Your task to perform on an android device: change text size in settings app Image 0: 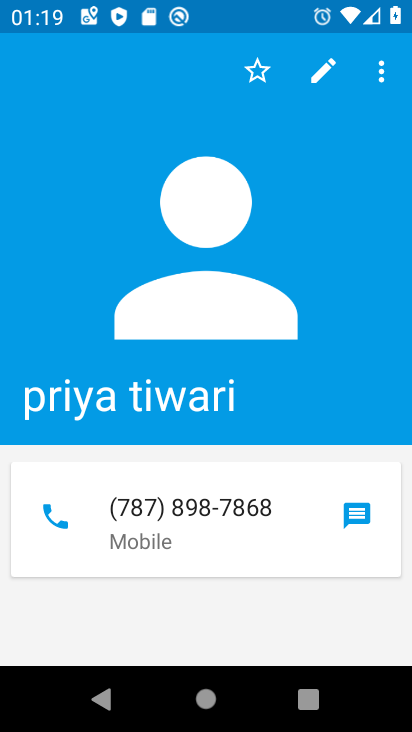
Step 0: press home button
Your task to perform on an android device: change text size in settings app Image 1: 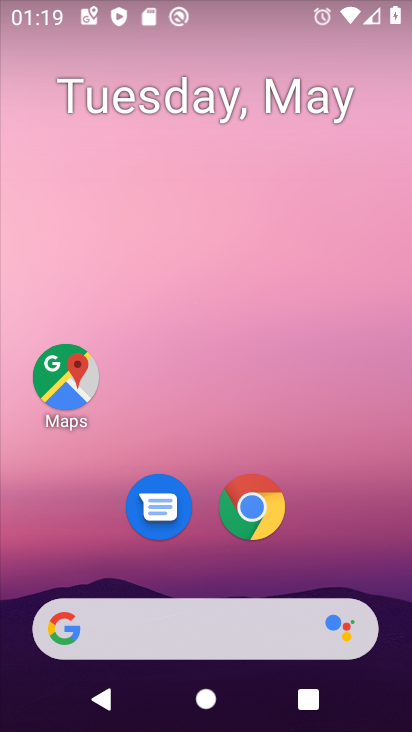
Step 1: drag from (233, 563) to (177, 219)
Your task to perform on an android device: change text size in settings app Image 2: 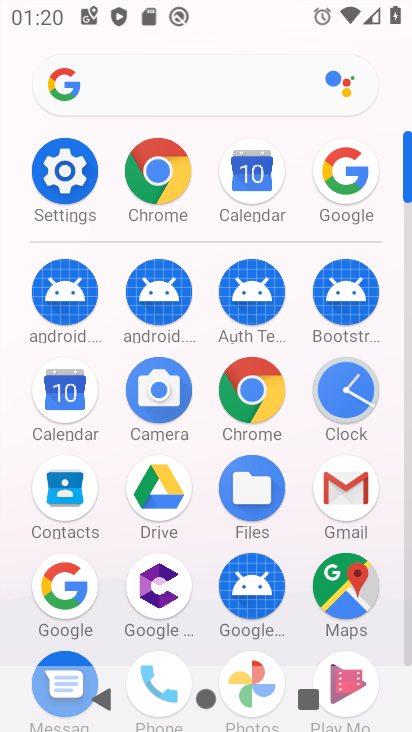
Step 2: click (70, 173)
Your task to perform on an android device: change text size in settings app Image 3: 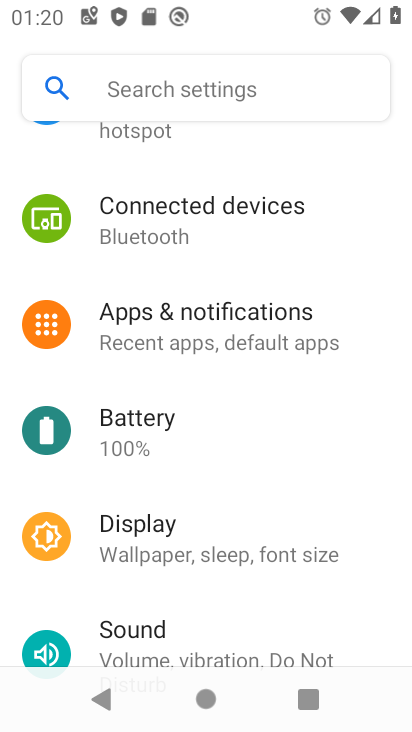
Step 3: drag from (174, 636) to (173, 234)
Your task to perform on an android device: change text size in settings app Image 4: 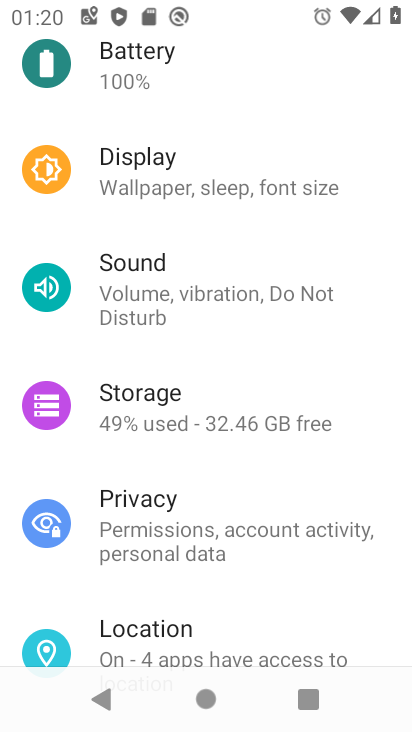
Step 4: drag from (199, 619) to (199, 274)
Your task to perform on an android device: change text size in settings app Image 5: 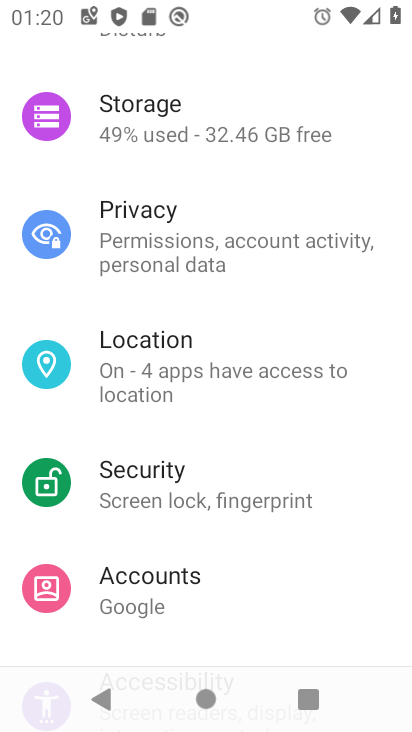
Step 5: drag from (152, 618) to (179, 347)
Your task to perform on an android device: change text size in settings app Image 6: 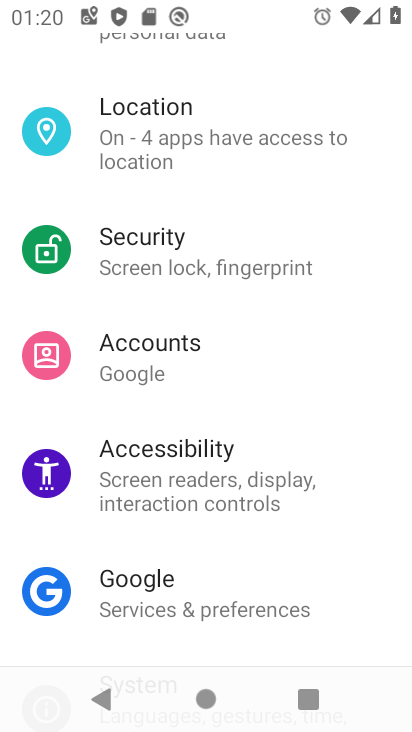
Step 6: drag from (155, 624) to (159, 339)
Your task to perform on an android device: change text size in settings app Image 7: 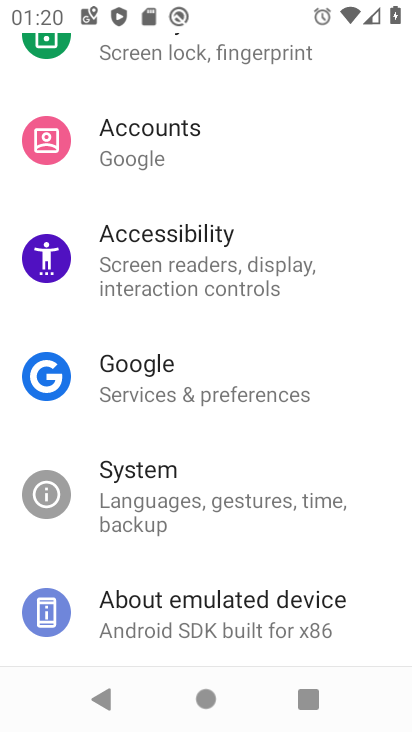
Step 7: click (151, 262)
Your task to perform on an android device: change text size in settings app Image 8: 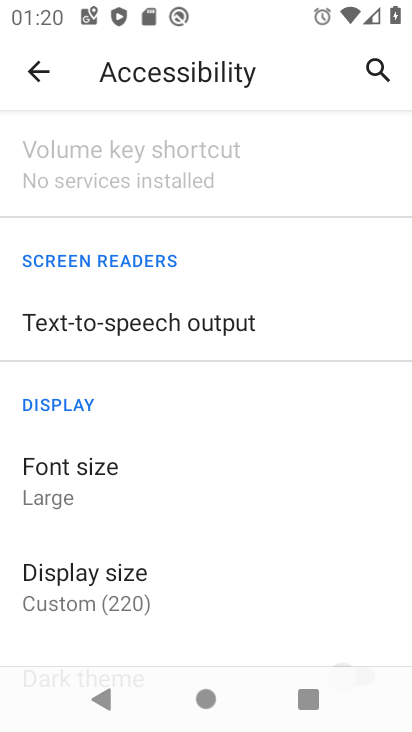
Step 8: click (69, 482)
Your task to perform on an android device: change text size in settings app Image 9: 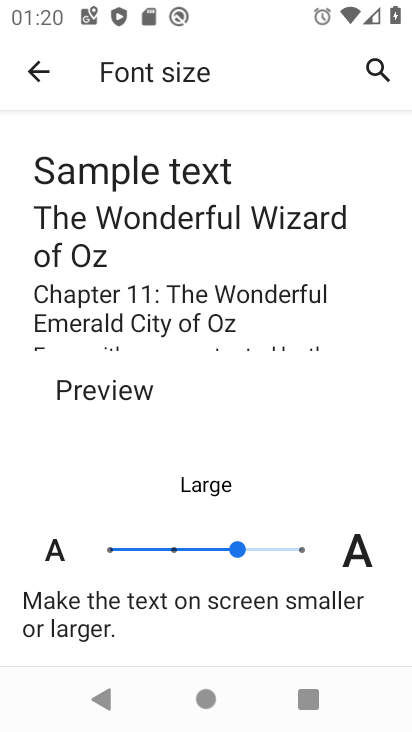
Step 9: click (200, 551)
Your task to perform on an android device: change text size in settings app Image 10: 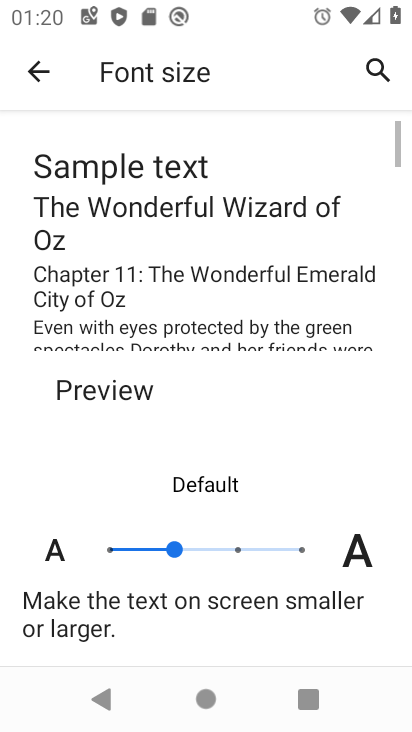
Step 10: click (237, 551)
Your task to perform on an android device: change text size in settings app Image 11: 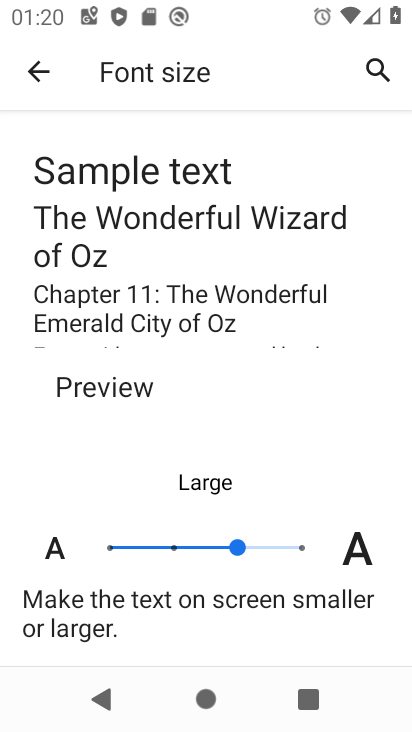
Step 11: click (176, 541)
Your task to perform on an android device: change text size in settings app Image 12: 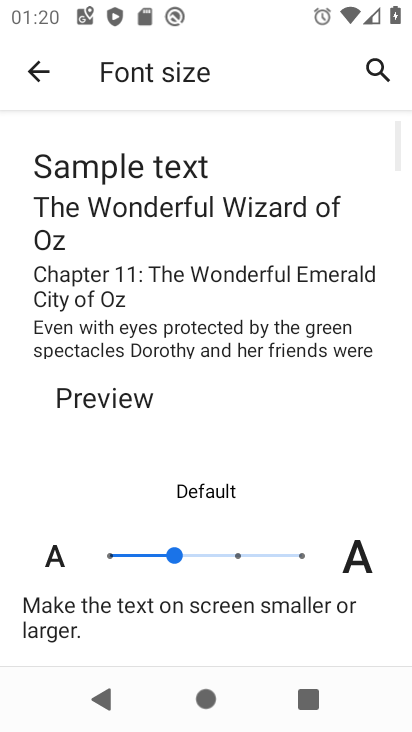
Step 12: task complete